Your task to perform on an android device: turn off wifi Image 0: 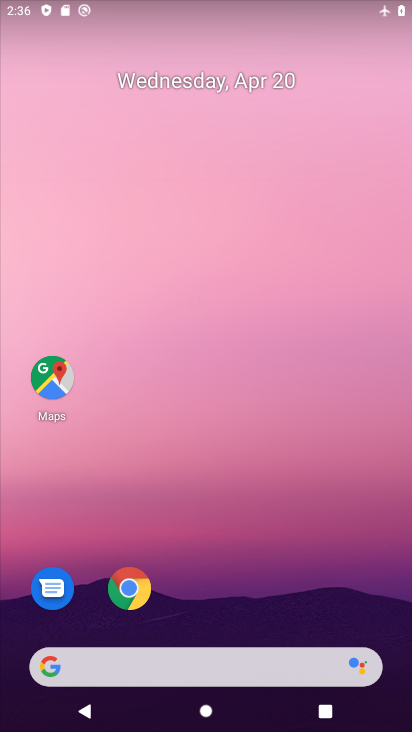
Step 0: drag from (213, 535) to (213, 50)
Your task to perform on an android device: turn off wifi Image 1: 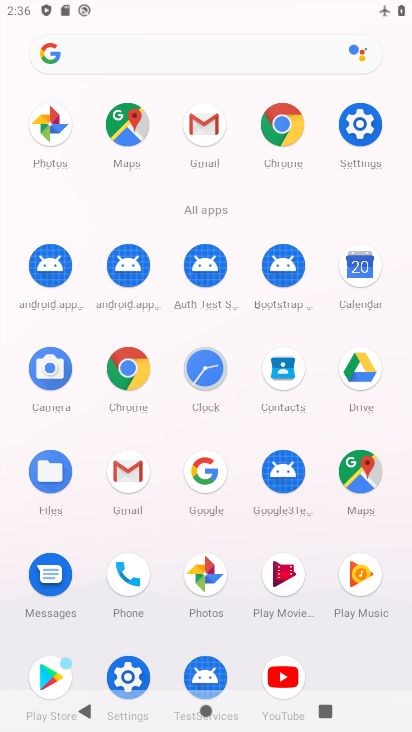
Step 1: click (356, 121)
Your task to perform on an android device: turn off wifi Image 2: 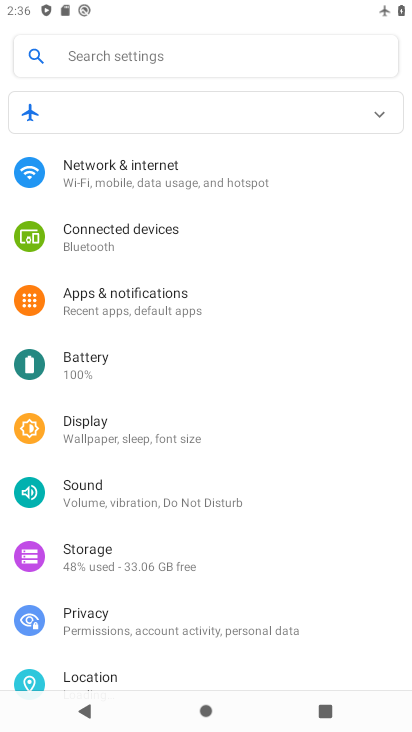
Step 2: click (183, 175)
Your task to perform on an android device: turn off wifi Image 3: 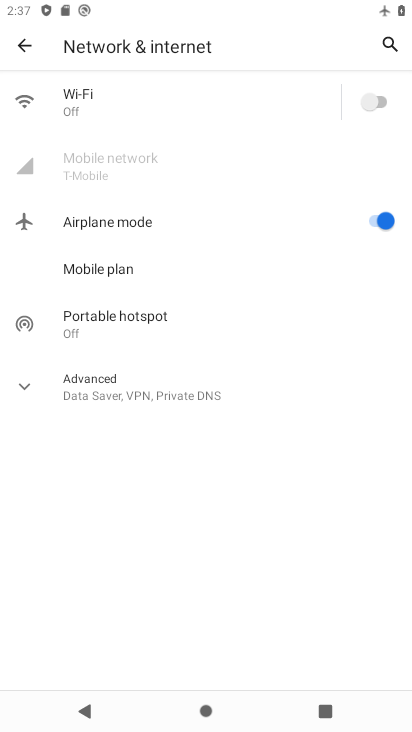
Step 3: task complete